Your task to perform on an android device: remove spam from my inbox in the gmail app Image 0: 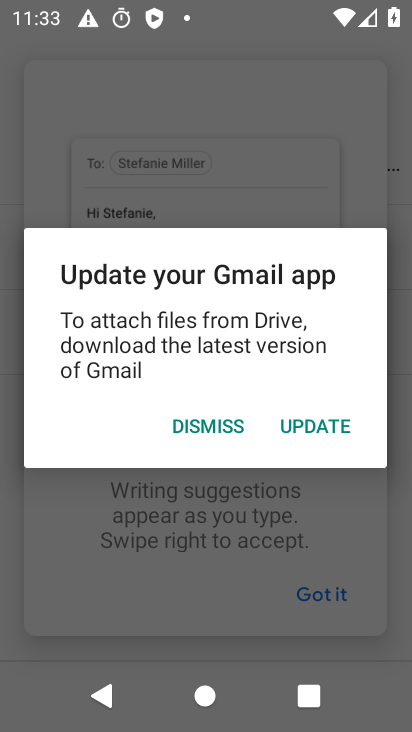
Step 0: press home button
Your task to perform on an android device: remove spam from my inbox in the gmail app Image 1: 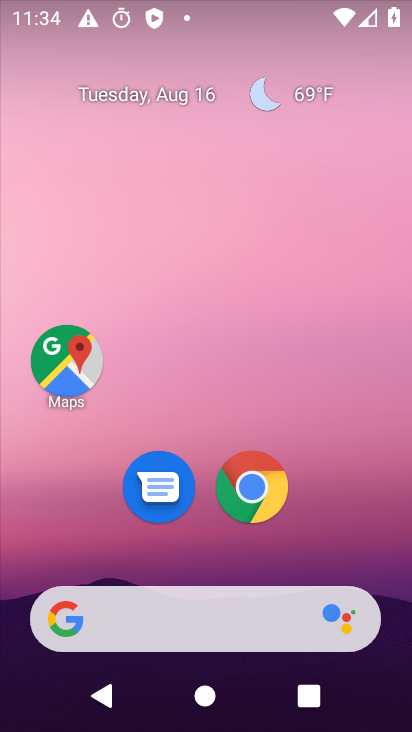
Step 1: drag from (337, 529) to (356, 164)
Your task to perform on an android device: remove spam from my inbox in the gmail app Image 2: 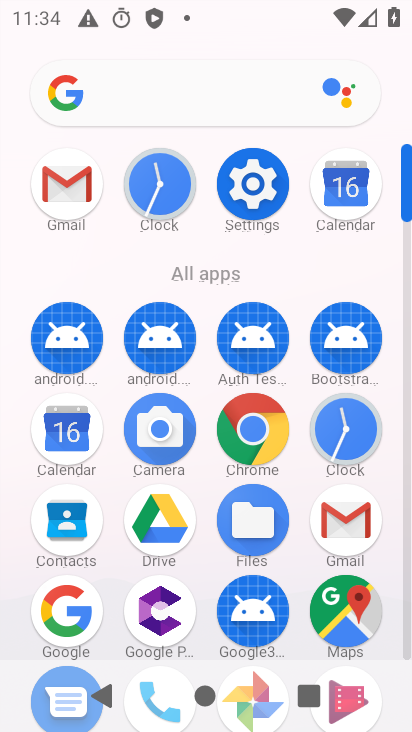
Step 2: click (43, 176)
Your task to perform on an android device: remove spam from my inbox in the gmail app Image 3: 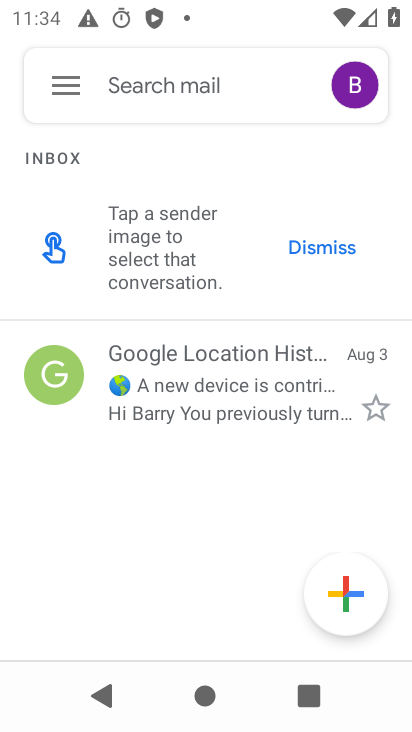
Step 3: click (69, 102)
Your task to perform on an android device: remove spam from my inbox in the gmail app Image 4: 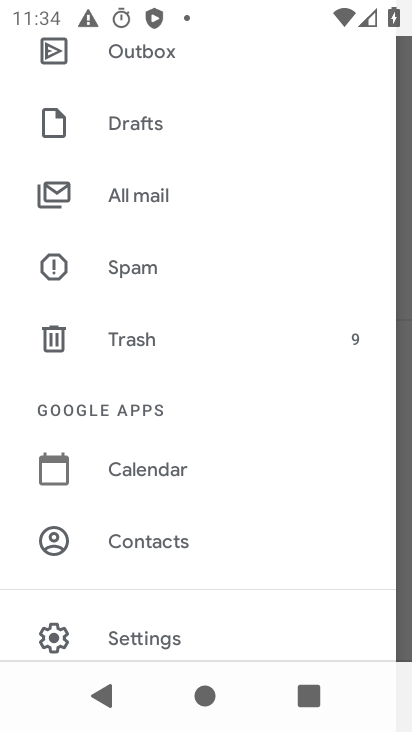
Step 4: click (140, 262)
Your task to perform on an android device: remove spam from my inbox in the gmail app Image 5: 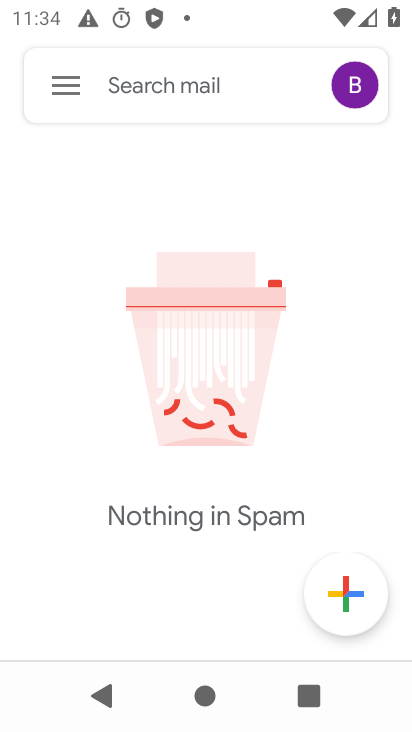
Step 5: task complete